Your task to perform on an android device: find which apps use the phone's location Image 0: 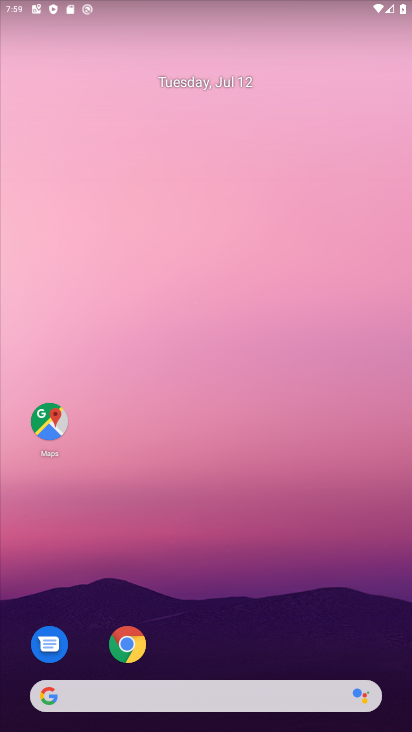
Step 0: click (302, 17)
Your task to perform on an android device: find which apps use the phone's location Image 1: 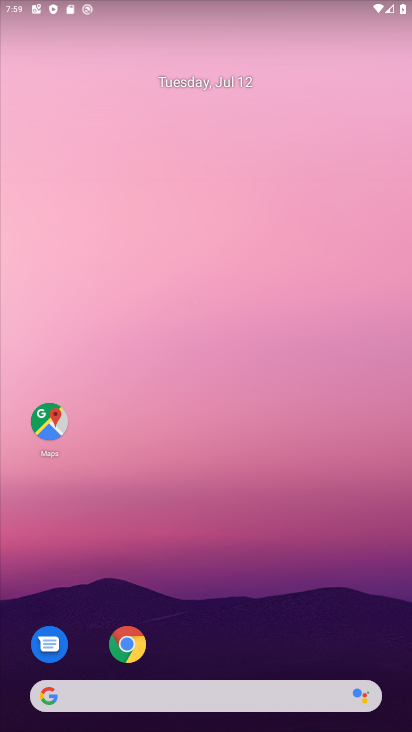
Step 1: drag from (212, 633) to (267, 5)
Your task to perform on an android device: find which apps use the phone's location Image 2: 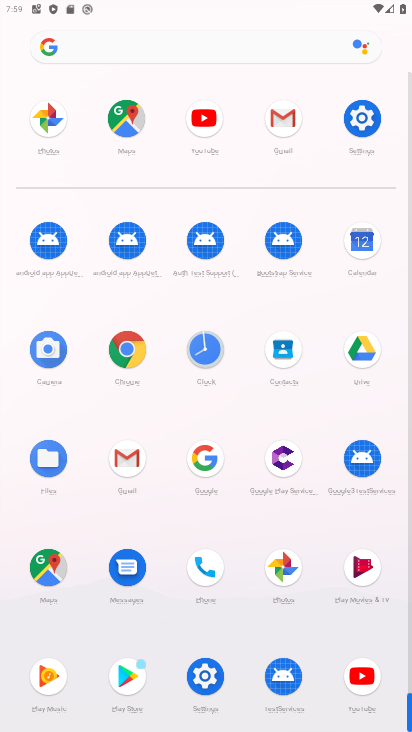
Step 2: click (359, 120)
Your task to perform on an android device: find which apps use the phone's location Image 3: 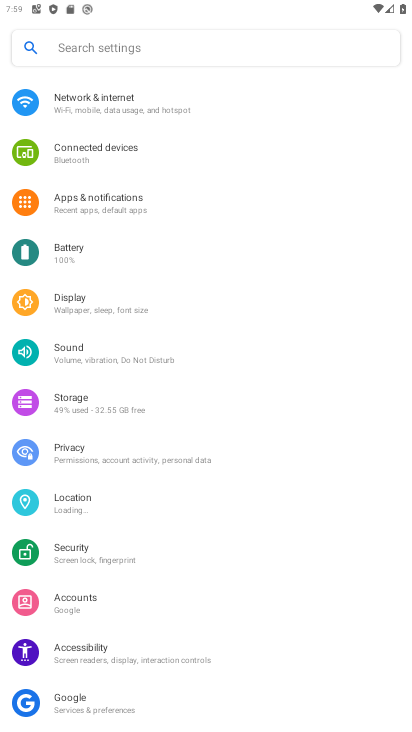
Step 3: click (354, 113)
Your task to perform on an android device: find which apps use the phone's location Image 4: 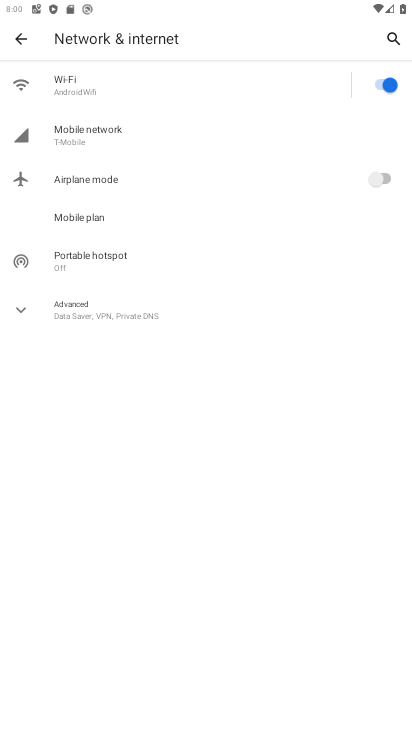
Step 4: click (10, 36)
Your task to perform on an android device: find which apps use the phone's location Image 5: 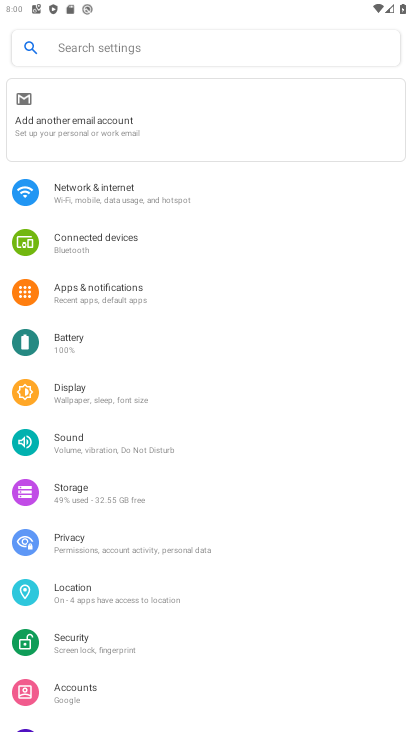
Step 5: click (109, 597)
Your task to perform on an android device: find which apps use the phone's location Image 6: 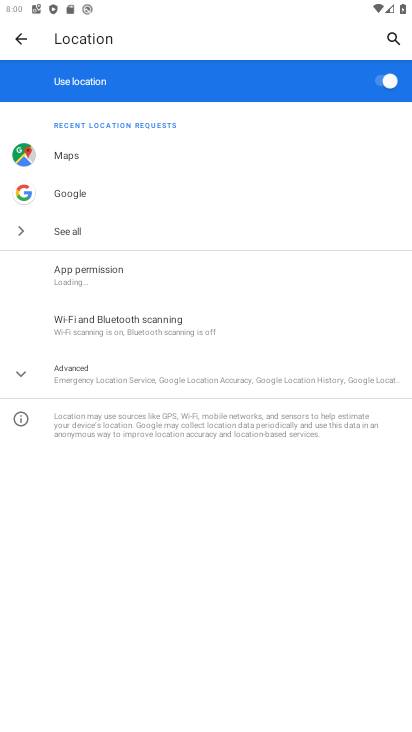
Step 6: click (68, 380)
Your task to perform on an android device: find which apps use the phone's location Image 7: 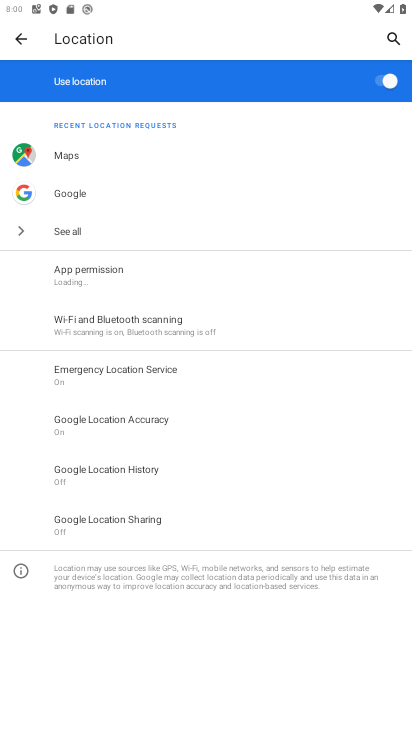
Step 7: click (107, 276)
Your task to perform on an android device: find which apps use the phone's location Image 8: 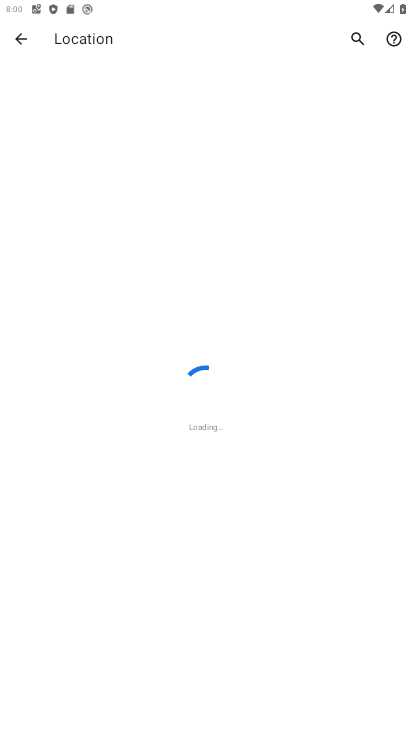
Step 8: task complete